Your task to perform on an android device: change keyboard looks Image 0: 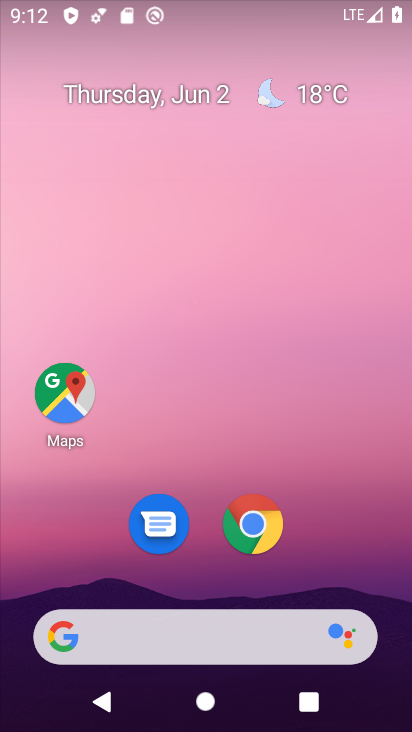
Step 0: drag from (203, 421) to (168, 28)
Your task to perform on an android device: change keyboard looks Image 1: 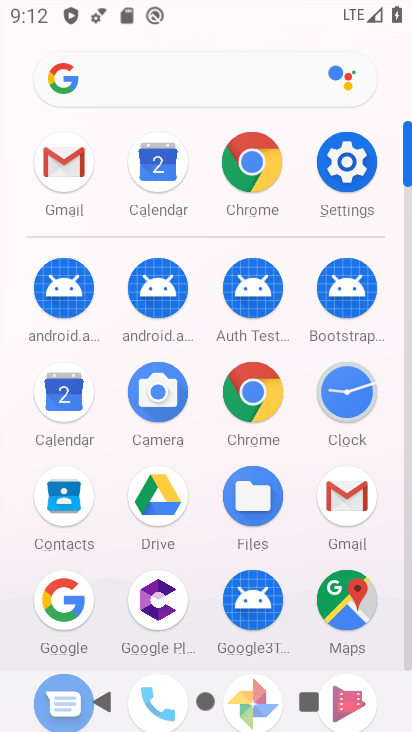
Step 1: click (335, 161)
Your task to perform on an android device: change keyboard looks Image 2: 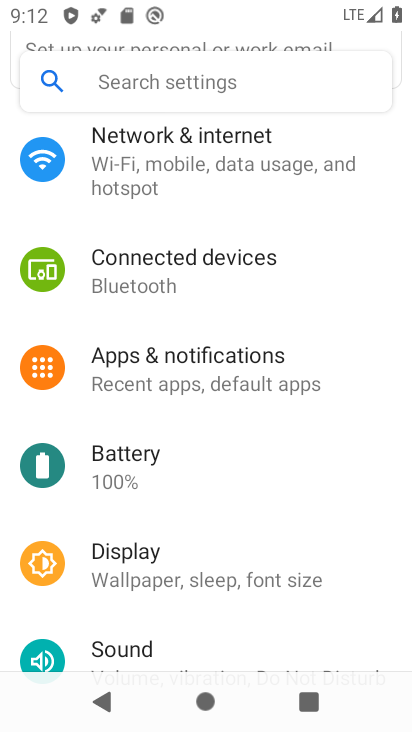
Step 2: drag from (245, 551) to (147, 83)
Your task to perform on an android device: change keyboard looks Image 3: 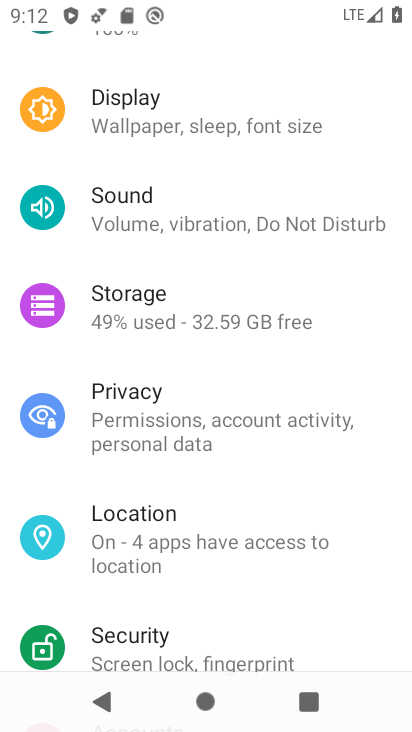
Step 3: drag from (243, 551) to (171, 74)
Your task to perform on an android device: change keyboard looks Image 4: 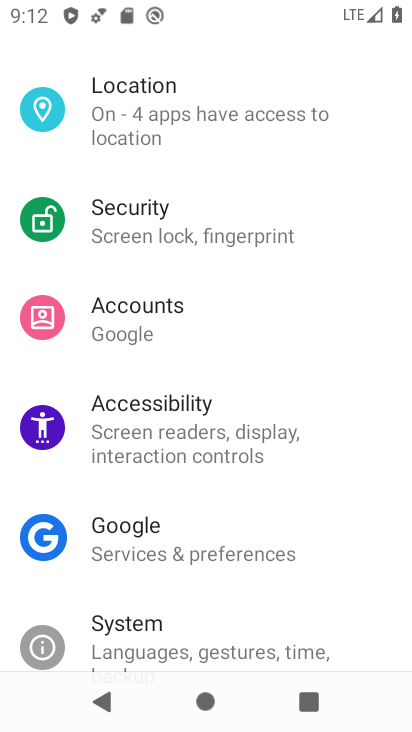
Step 4: click (216, 630)
Your task to perform on an android device: change keyboard looks Image 5: 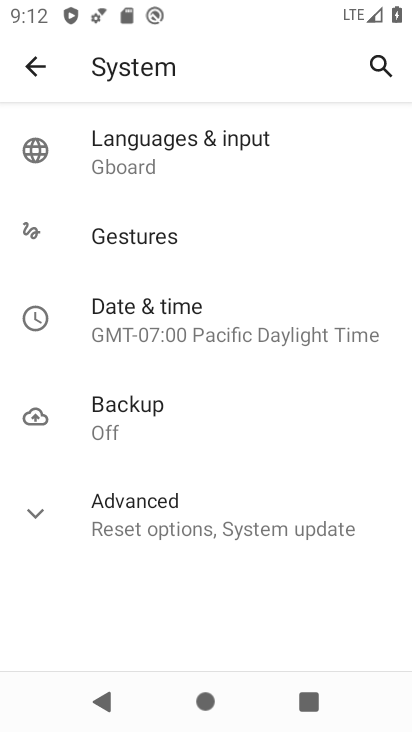
Step 5: click (117, 144)
Your task to perform on an android device: change keyboard looks Image 6: 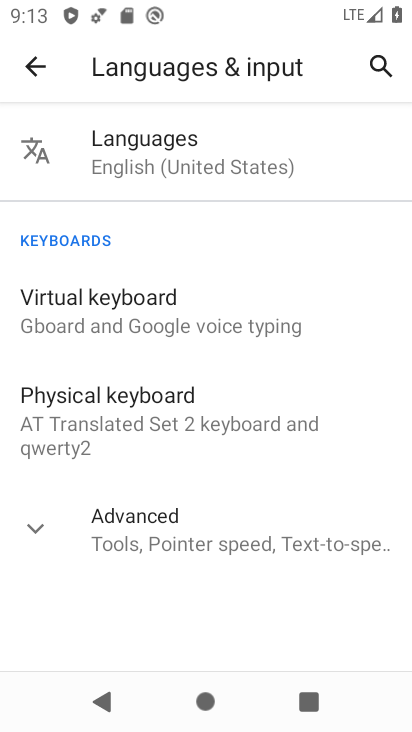
Step 6: click (127, 321)
Your task to perform on an android device: change keyboard looks Image 7: 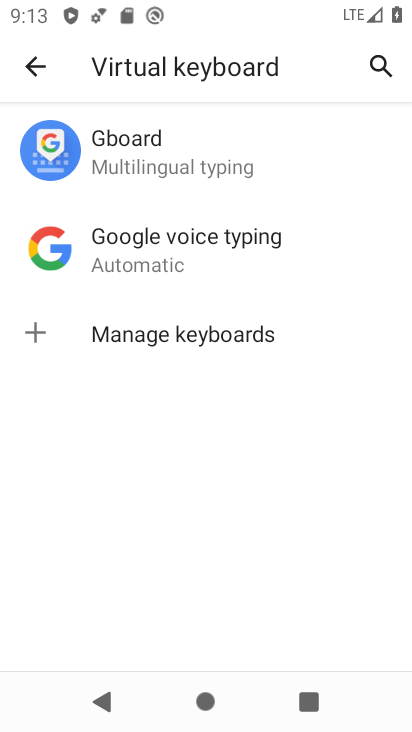
Step 7: click (111, 148)
Your task to perform on an android device: change keyboard looks Image 8: 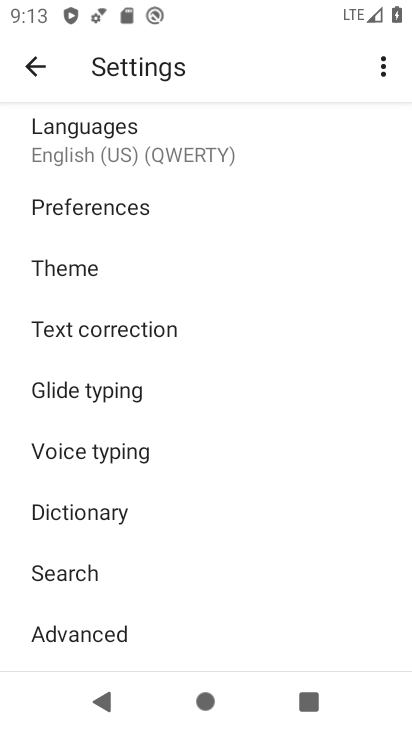
Step 8: click (130, 263)
Your task to perform on an android device: change keyboard looks Image 9: 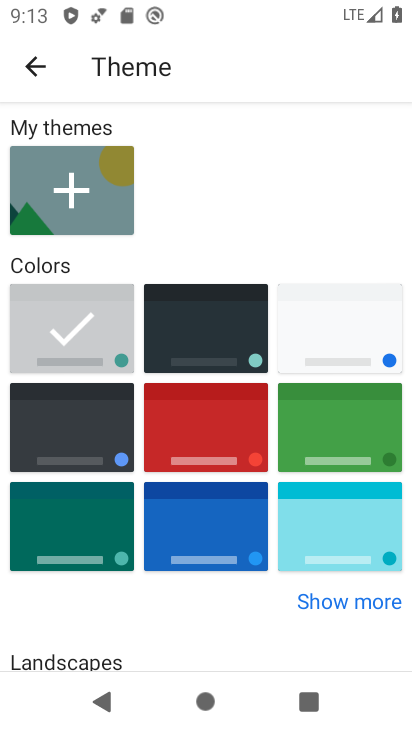
Step 9: click (254, 425)
Your task to perform on an android device: change keyboard looks Image 10: 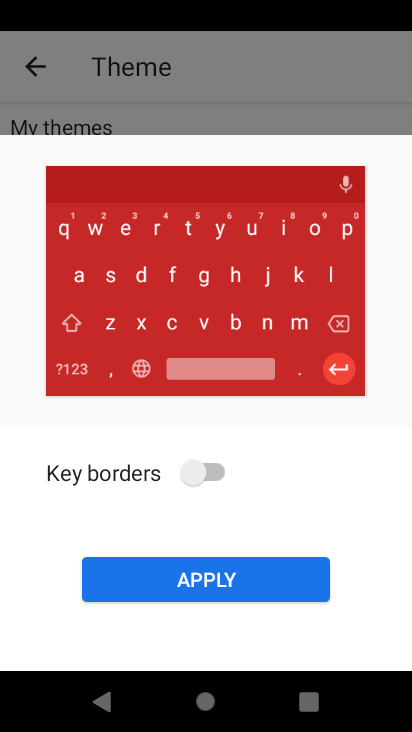
Step 10: click (206, 467)
Your task to perform on an android device: change keyboard looks Image 11: 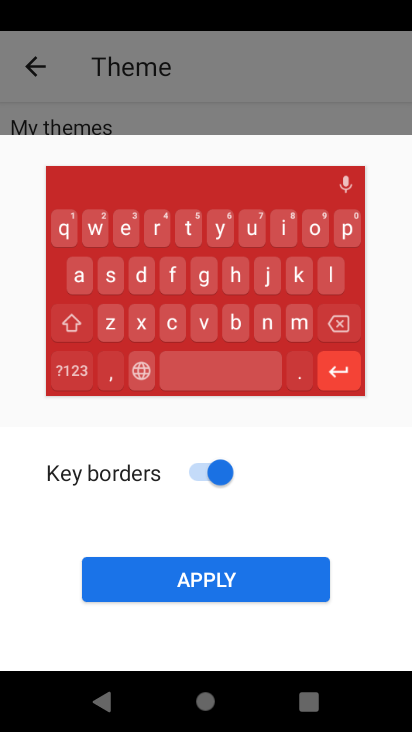
Step 11: click (250, 578)
Your task to perform on an android device: change keyboard looks Image 12: 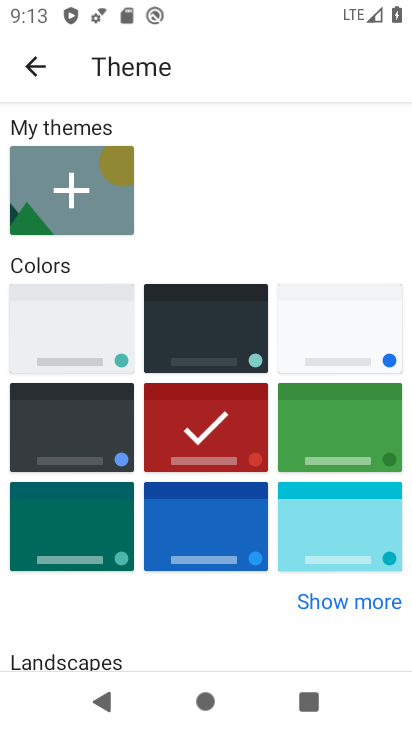
Step 12: task complete